Your task to perform on an android device: turn off airplane mode Image 0: 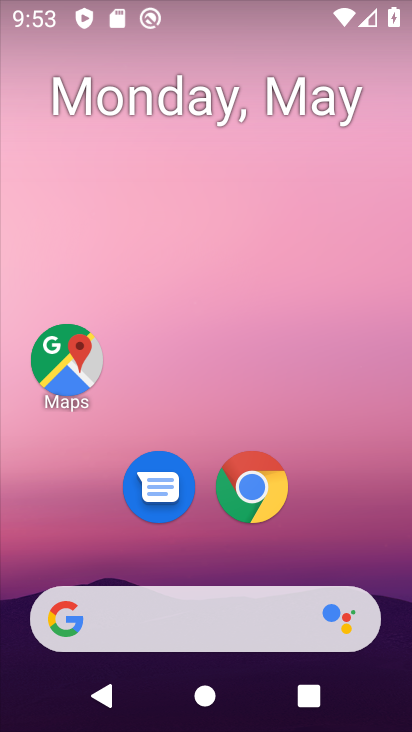
Step 0: drag from (197, 568) to (243, 3)
Your task to perform on an android device: turn off airplane mode Image 1: 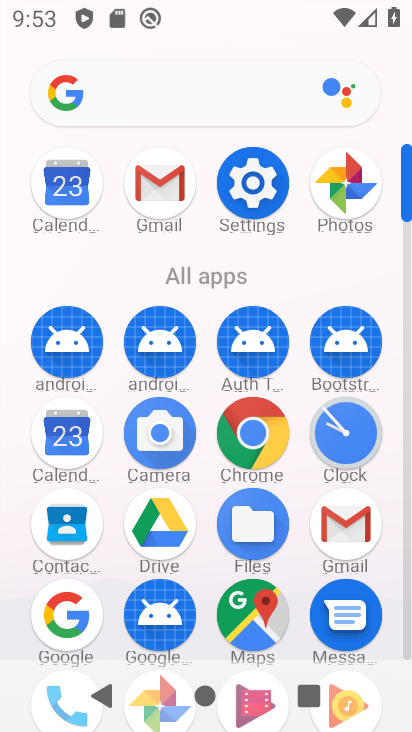
Step 1: click (259, 210)
Your task to perform on an android device: turn off airplane mode Image 2: 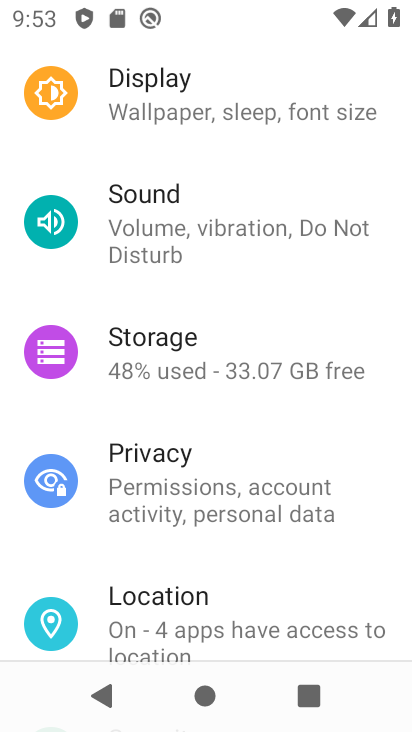
Step 2: drag from (250, 210) to (235, 579)
Your task to perform on an android device: turn off airplane mode Image 3: 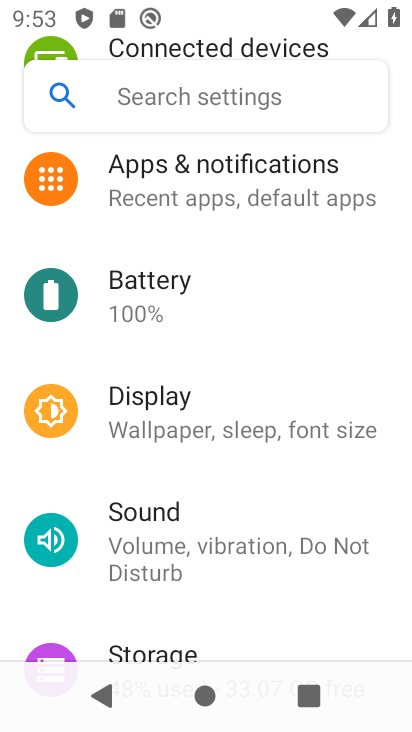
Step 3: drag from (270, 276) to (253, 643)
Your task to perform on an android device: turn off airplane mode Image 4: 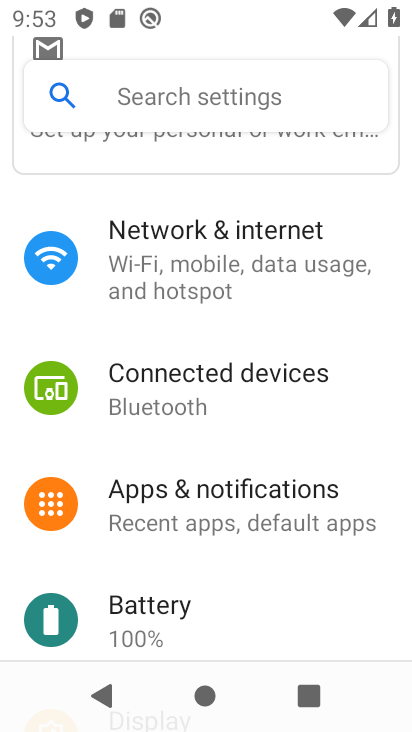
Step 4: click (237, 271)
Your task to perform on an android device: turn off airplane mode Image 5: 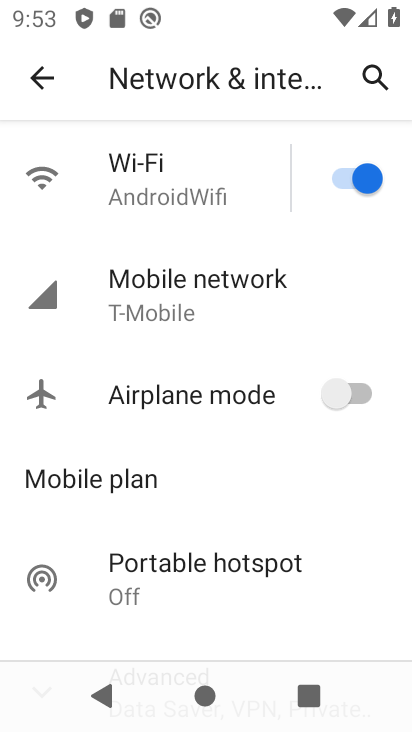
Step 5: task complete